Your task to perform on an android device: Go to Reddit.com Image 0: 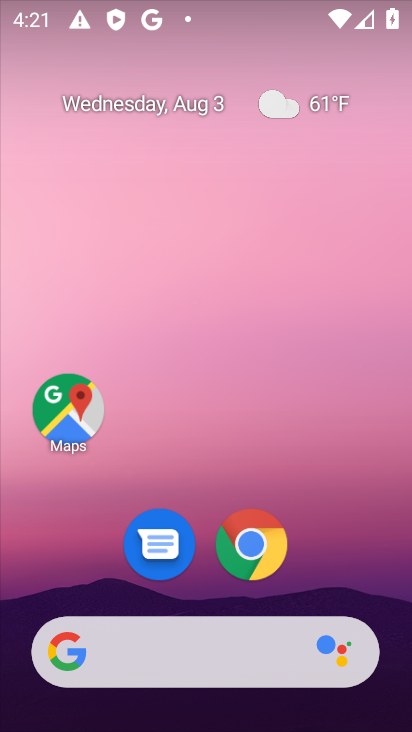
Step 0: click (241, 542)
Your task to perform on an android device: Go to Reddit.com Image 1: 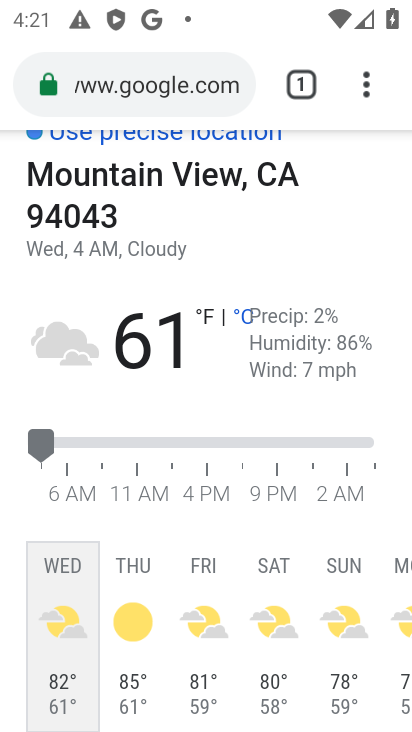
Step 1: click (118, 85)
Your task to perform on an android device: Go to Reddit.com Image 2: 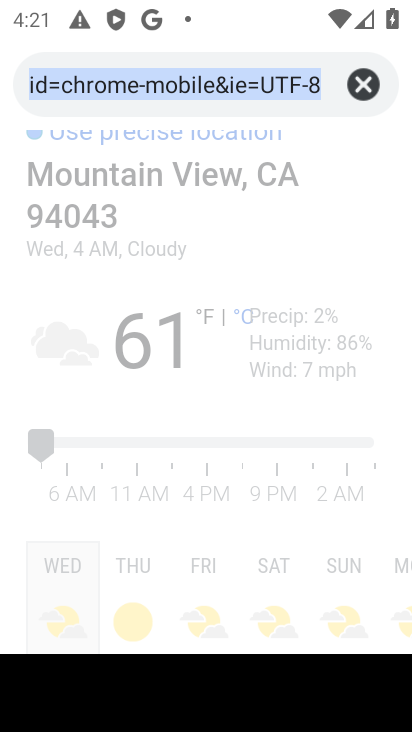
Step 2: click (358, 77)
Your task to perform on an android device: Go to Reddit.com Image 3: 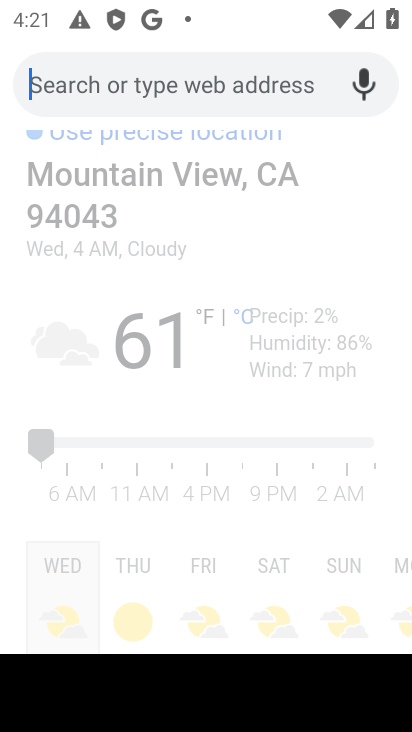
Step 3: type " Reddit.com"
Your task to perform on an android device: Go to Reddit.com Image 4: 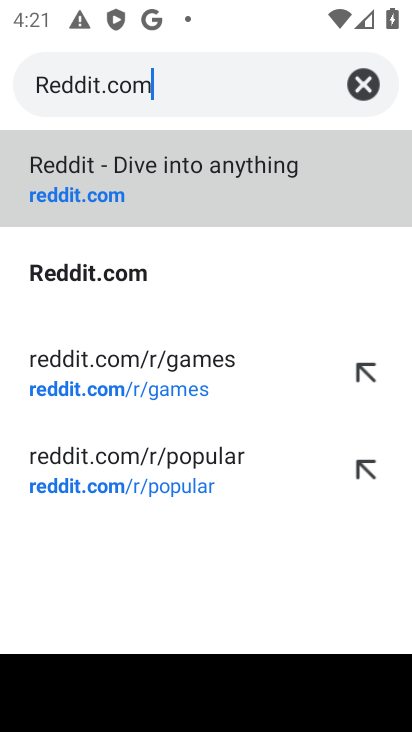
Step 4: click (112, 195)
Your task to perform on an android device: Go to Reddit.com Image 5: 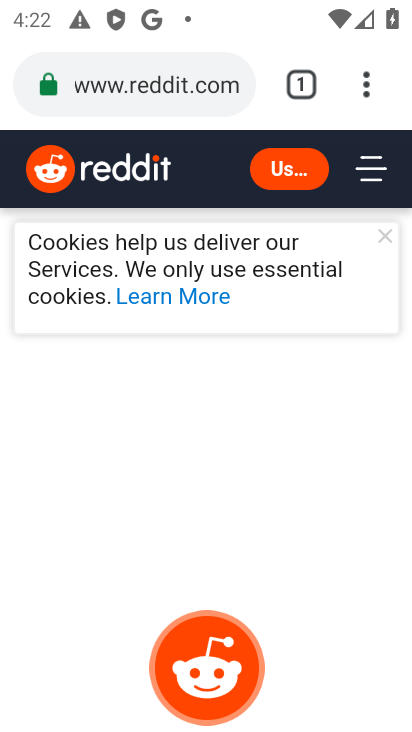
Step 5: task complete